Your task to perform on an android device: Open accessibility settings Image 0: 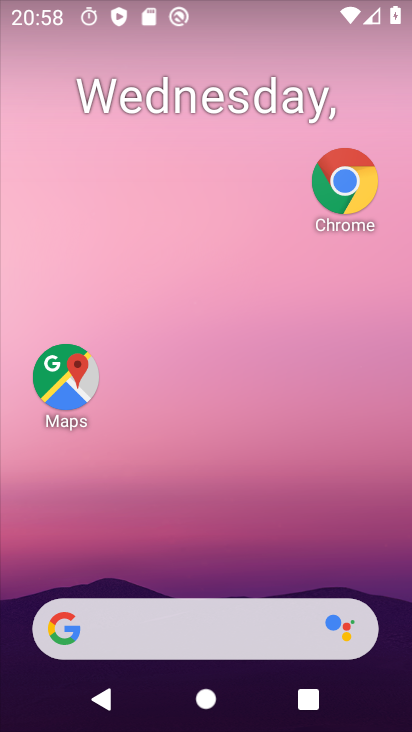
Step 0: drag from (231, 668) to (239, 286)
Your task to perform on an android device: Open accessibility settings Image 1: 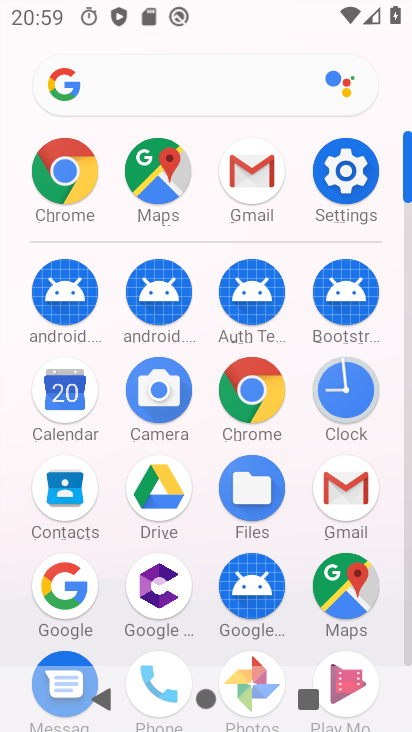
Step 1: click (333, 182)
Your task to perform on an android device: Open accessibility settings Image 2: 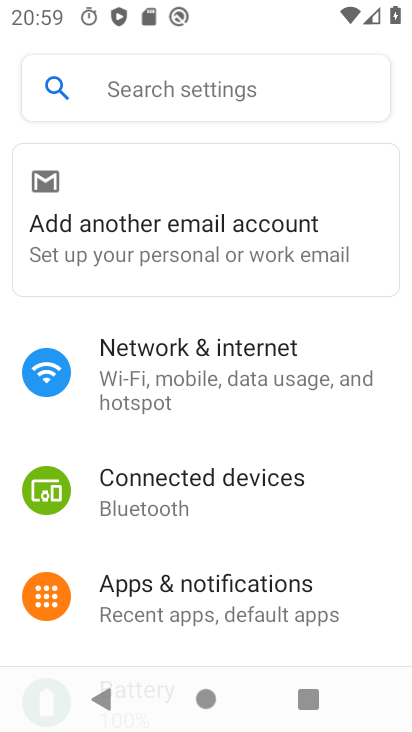
Step 2: click (214, 68)
Your task to perform on an android device: Open accessibility settings Image 3: 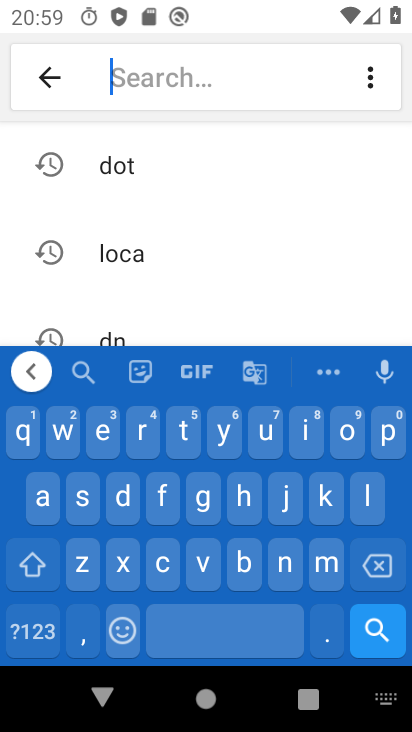
Step 3: click (39, 497)
Your task to perform on an android device: Open accessibility settings Image 4: 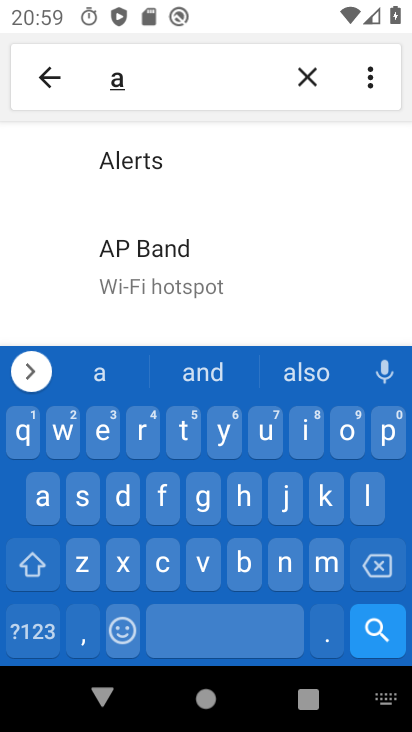
Step 4: click (167, 572)
Your task to perform on an android device: Open accessibility settings Image 5: 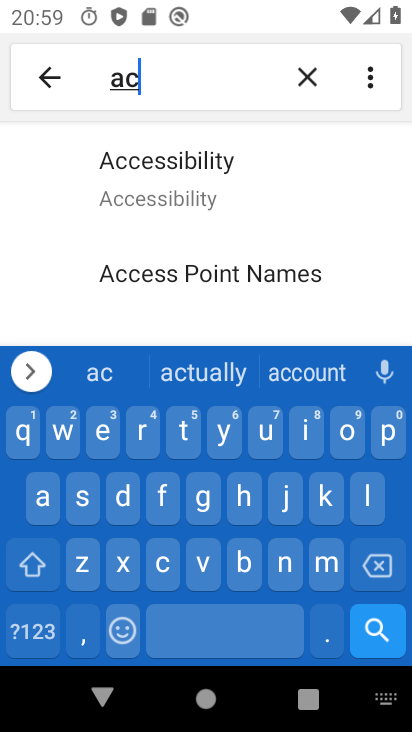
Step 5: click (195, 193)
Your task to perform on an android device: Open accessibility settings Image 6: 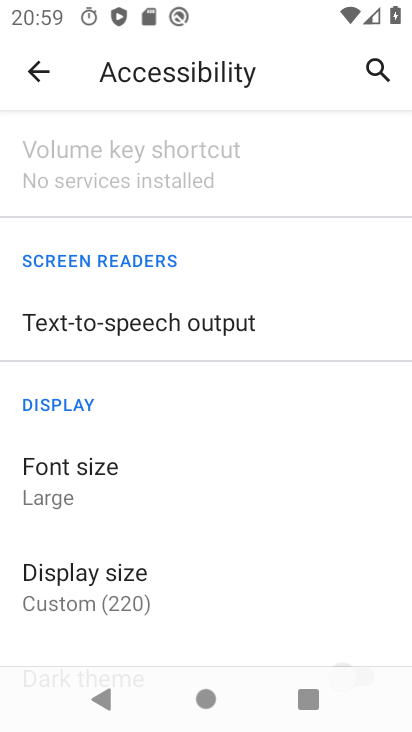
Step 6: task complete